Your task to perform on an android device: Open eBay Image 0: 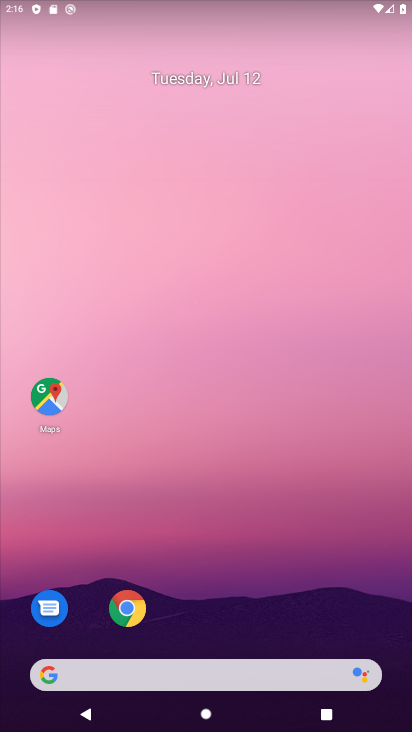
Step 0: click (126, 603)
Your task to perform on an android device: Open eBay Image 1: 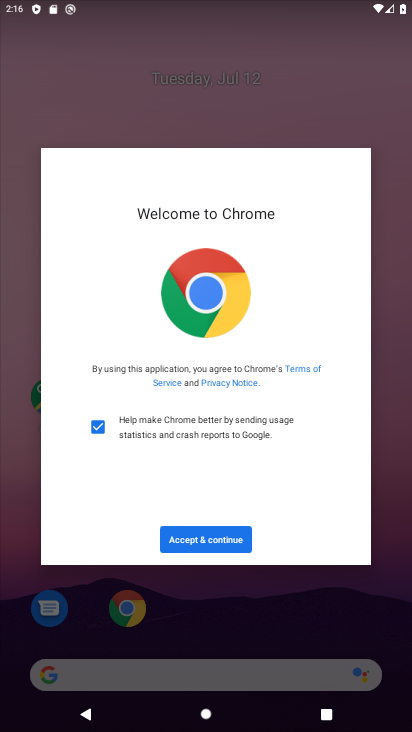
Step 1: click (189, 544)
Your task to perform on an android device: Open eBay Image 2: 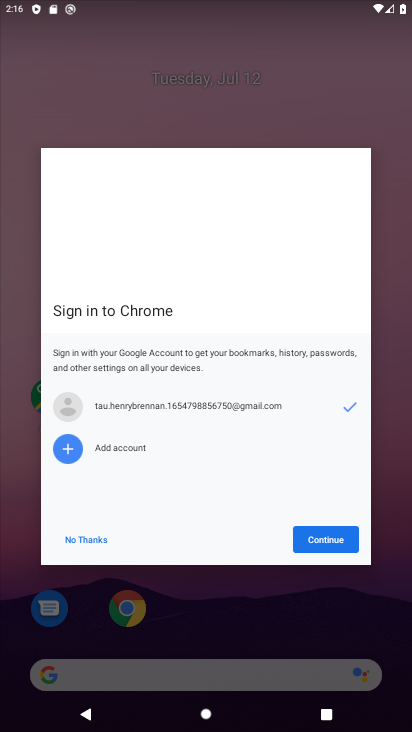
Step 2: click (309, 540)
Your task to perform on an android device: Open eBay Image 3: 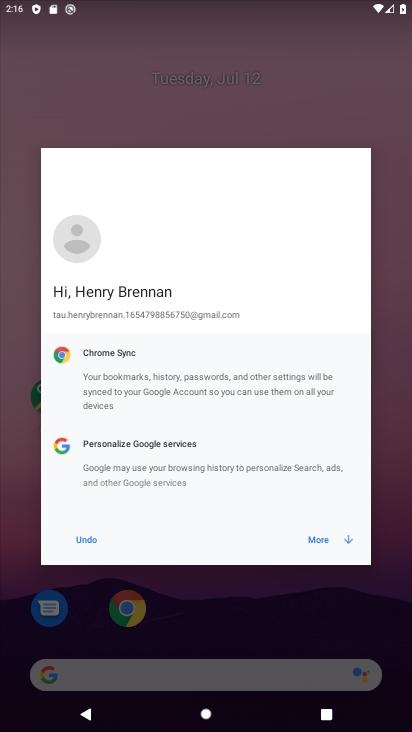
Step 3: click (332, 535)
Your task to perform on an android device: Open eBay Image 4: 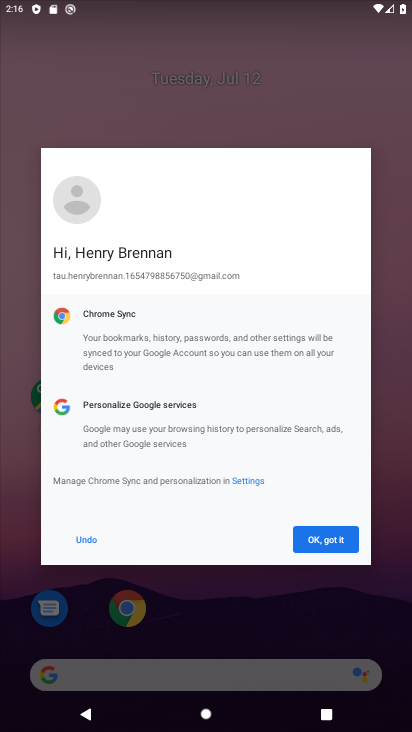
Step 4: click (328, 542)
Your task to perform on an android device: Open eBay Image 5: 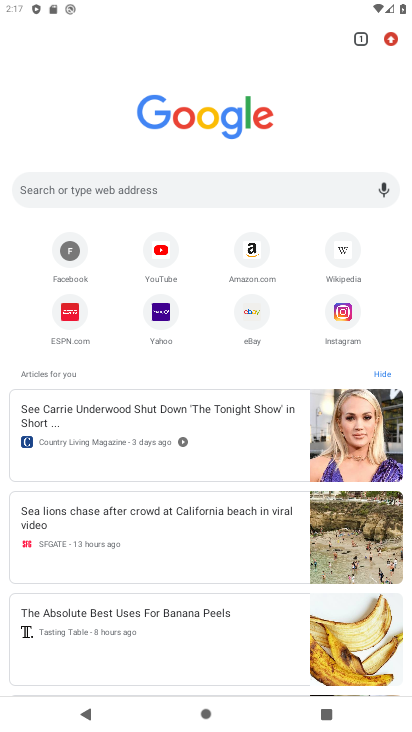
Step 5: click (253, 305)
Your task to perform on an android device: Open eBay Image 6: 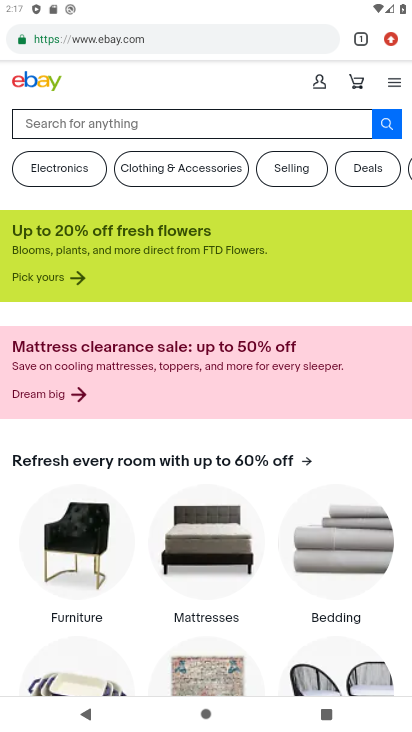
Step 6: task complete